Your task to perform on an android device: turn off smart reply in the gmail app Image 0: 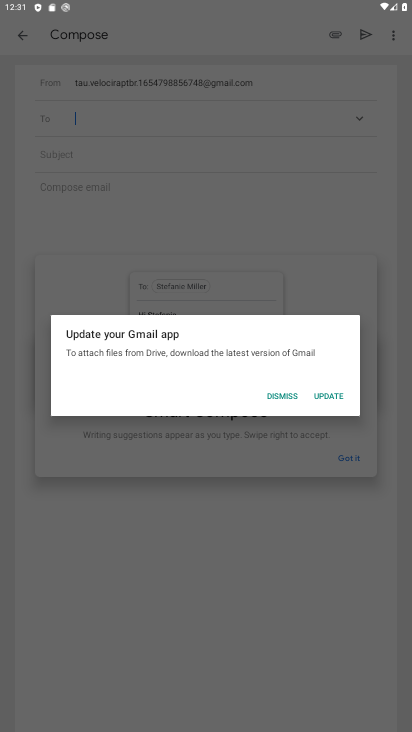
Step 0: press home button
Your task to perform on an android device: turn off smart reply in the gmail app Image 1: 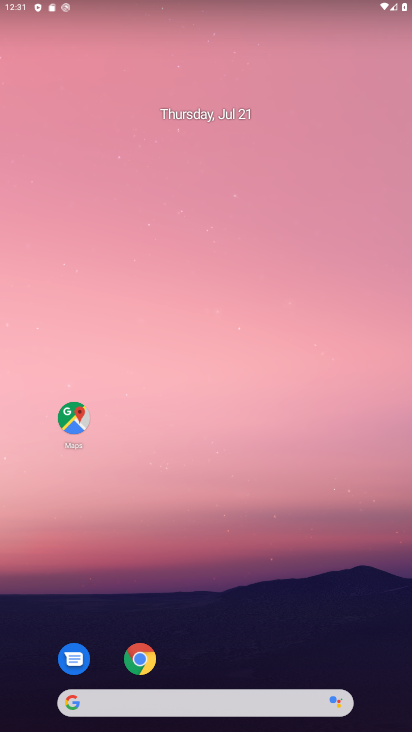
Step 1: drag from (202, 707) to (209, 102)
Your task to perform on an android device: turn off smart reply in the gmail app Image 2: 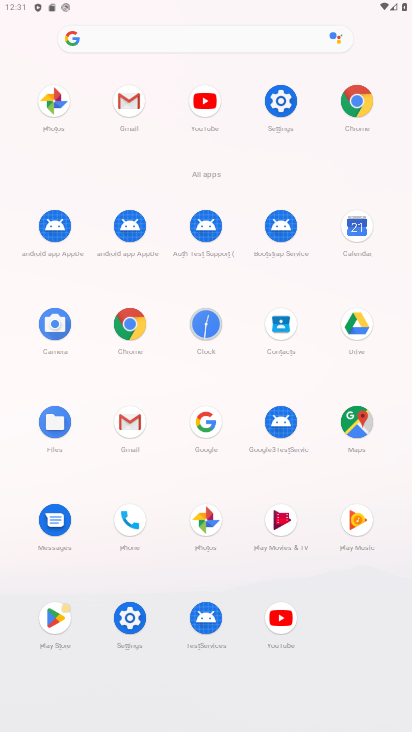
Step 2: click (128, 100)
Your task to perform on an android device: turn off smart reply in the gmail app Image 3: 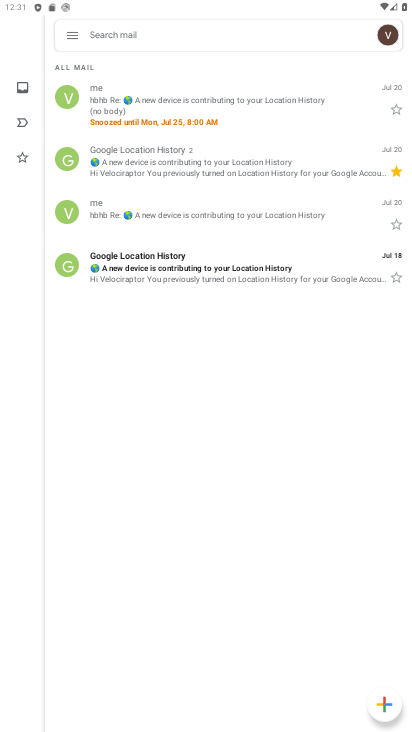
Step 3: click (72, 35)
Your task to perform on an android device: turn off smart reply in the gmail app Image 4: 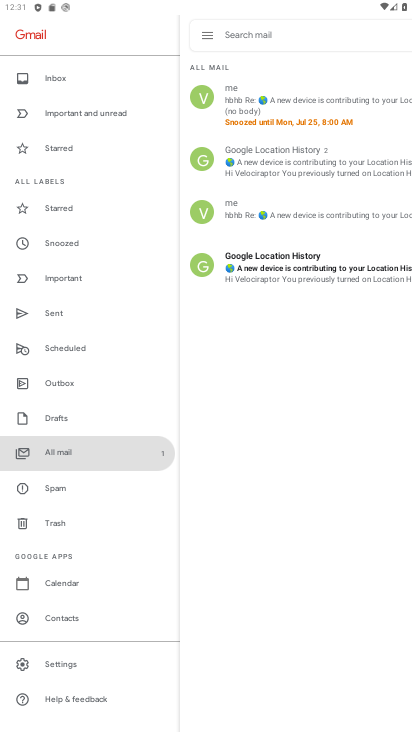
Step 4: drag from (77, 379) to (107, 300)
Your task to perform on an android device: turn off smart reply in the gmail app Image 5: 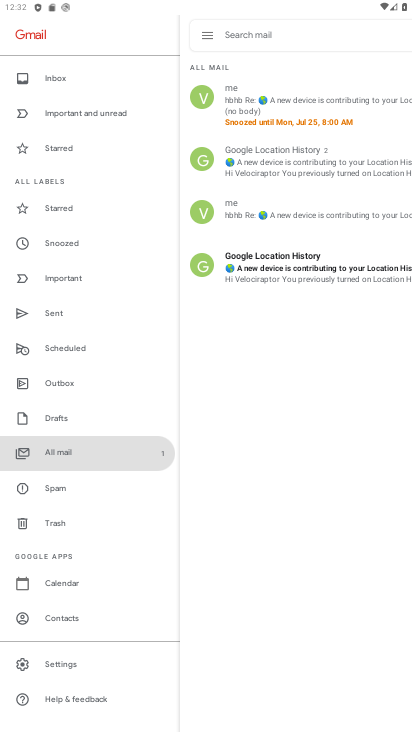
Step 5: click (74, 664)
Your task to perform on an android device: turn off smart reply in the gmail app Image 6: 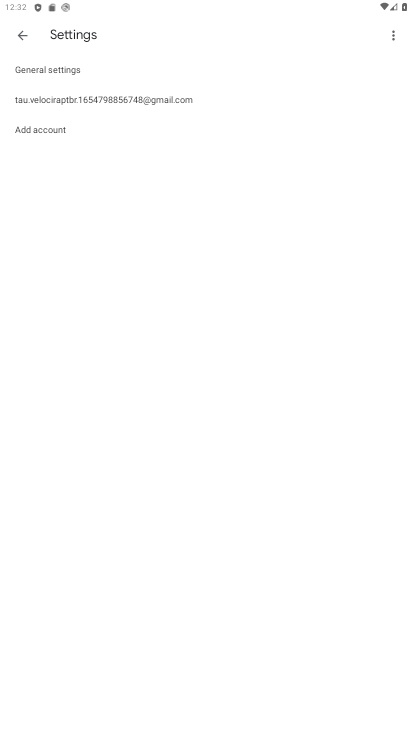
Step 6: click (130, 95)
Your task to perform on an android device: turn off smart reply in the gmail app Image 7: 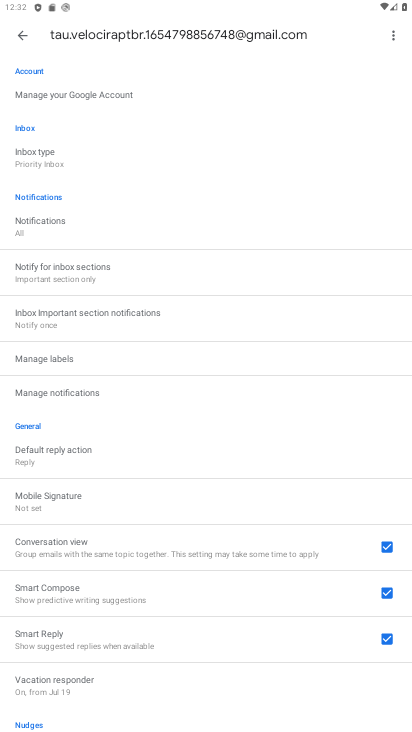
Step 7: click (385, 640)
Your task to perform on an android device: turn off smart reply in the gmail app Image 8: 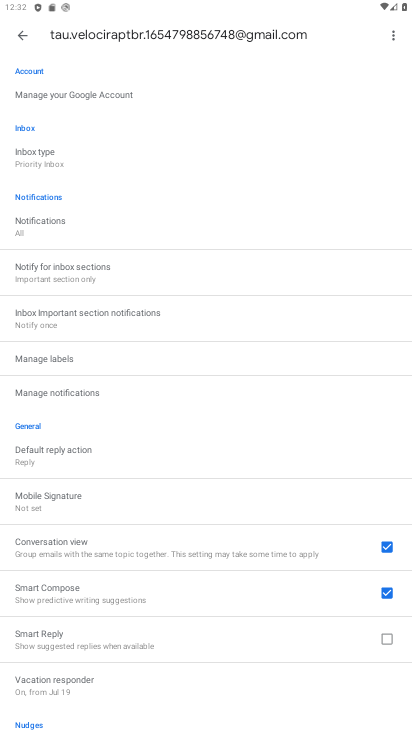
Step 8: task complete